Your task to perform on an android device: Open Google Maps Image 0: 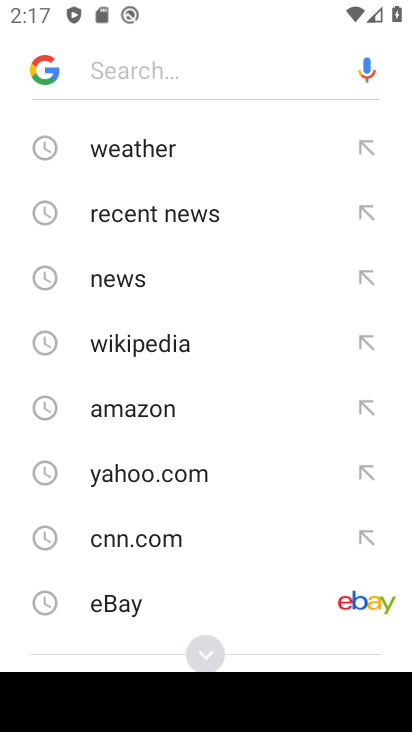
Step 0: press home button
Your task to perform on an android device: Open Google Maps Image 1: 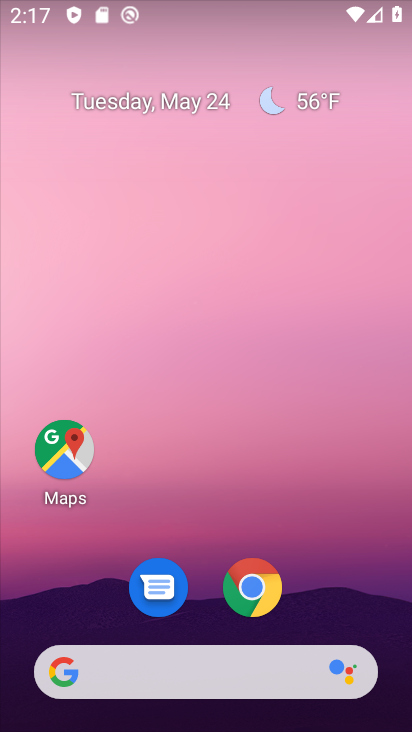
Step 1: click (63, 475)
Your task to perform on an android device: Open Google Maps Image 2: 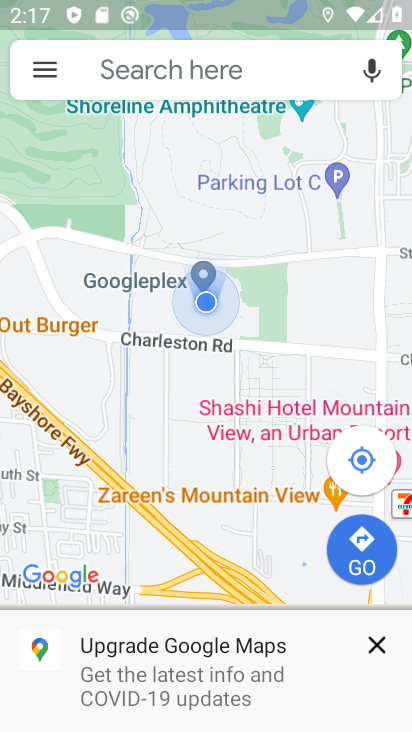
Step 2: task complete